Your task to perform on an android device: Do I have any events this weekend? Image 0: 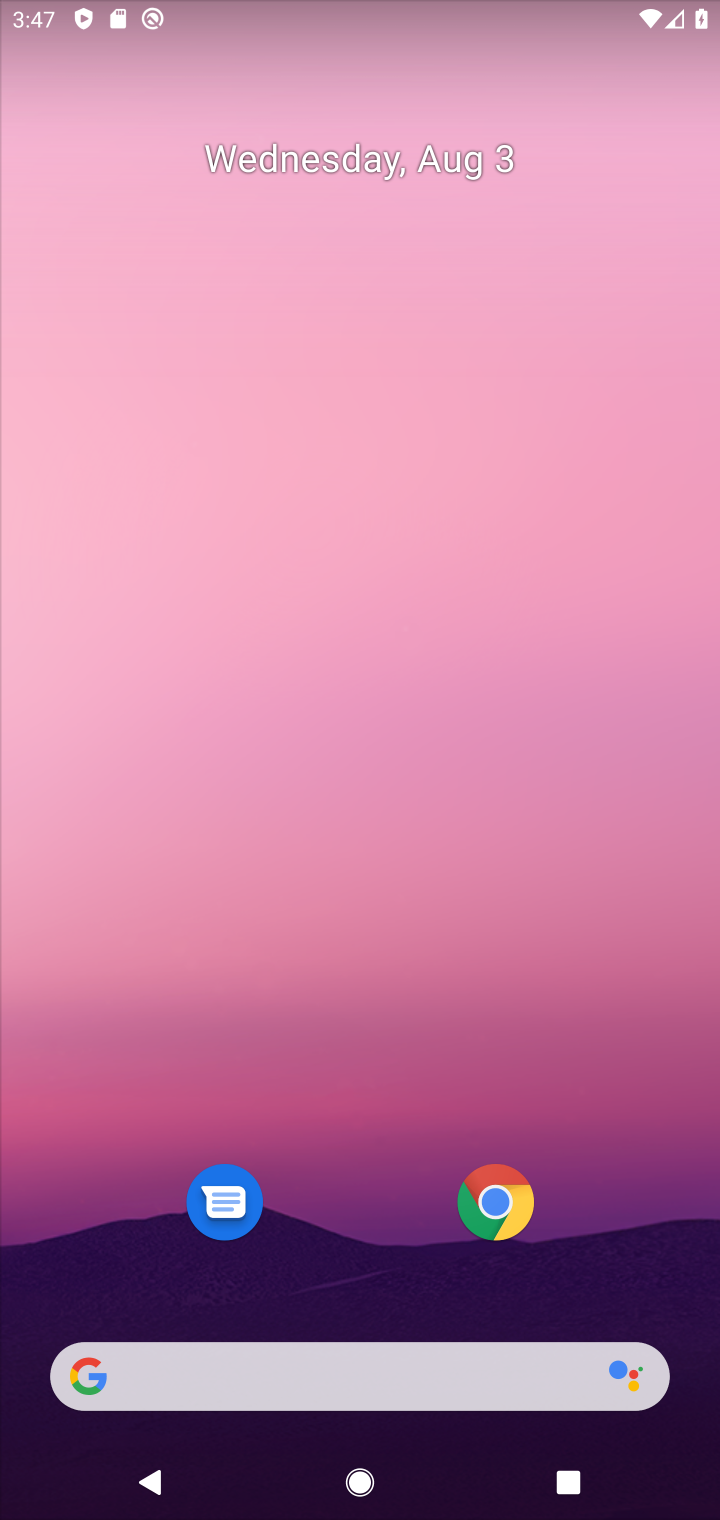
Step 0: drag from (350, 969) to (479, 0)
Your task to perform on an android device: Do I have any events this weekend? Image 1: 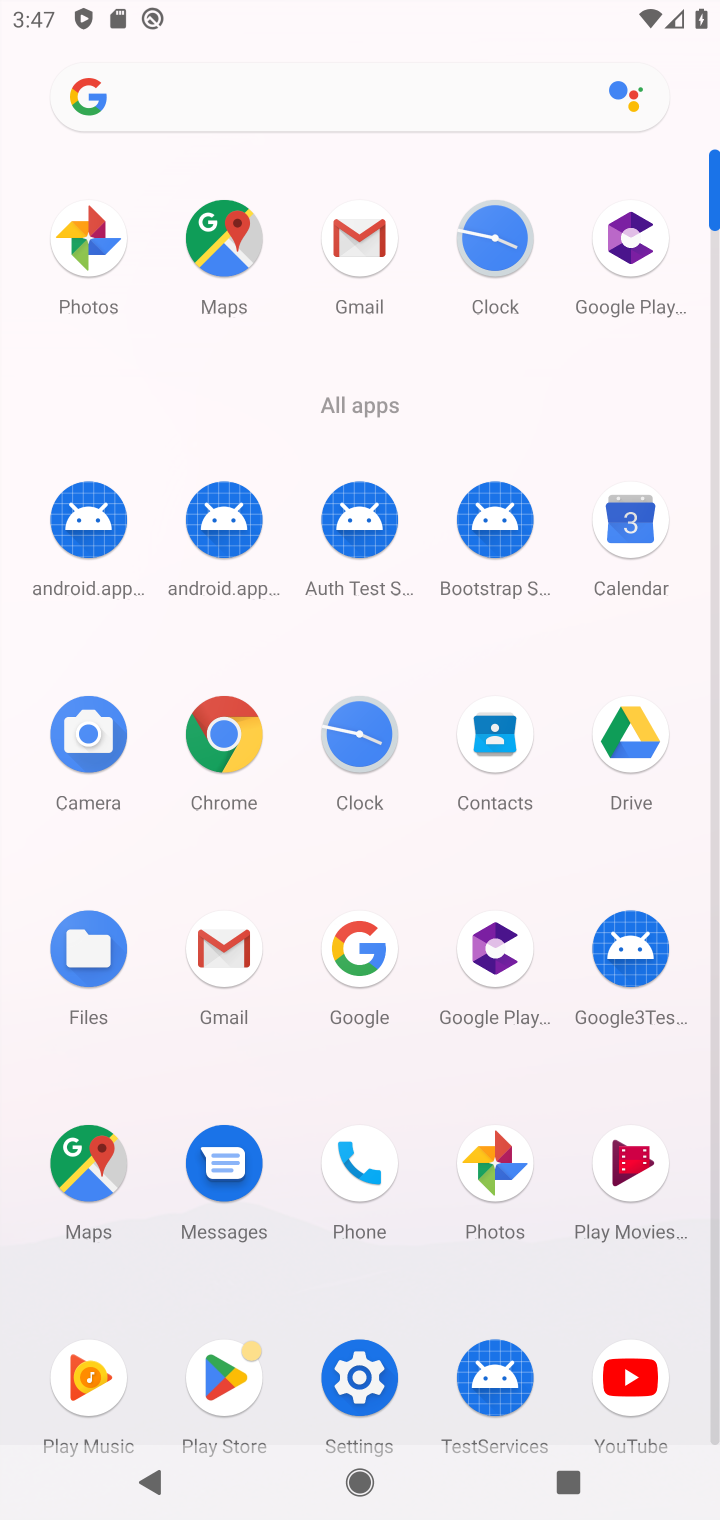
Step 1: click (637, 520)
Your task to perform on an android device: Do I have any events this weekend? Image 2: 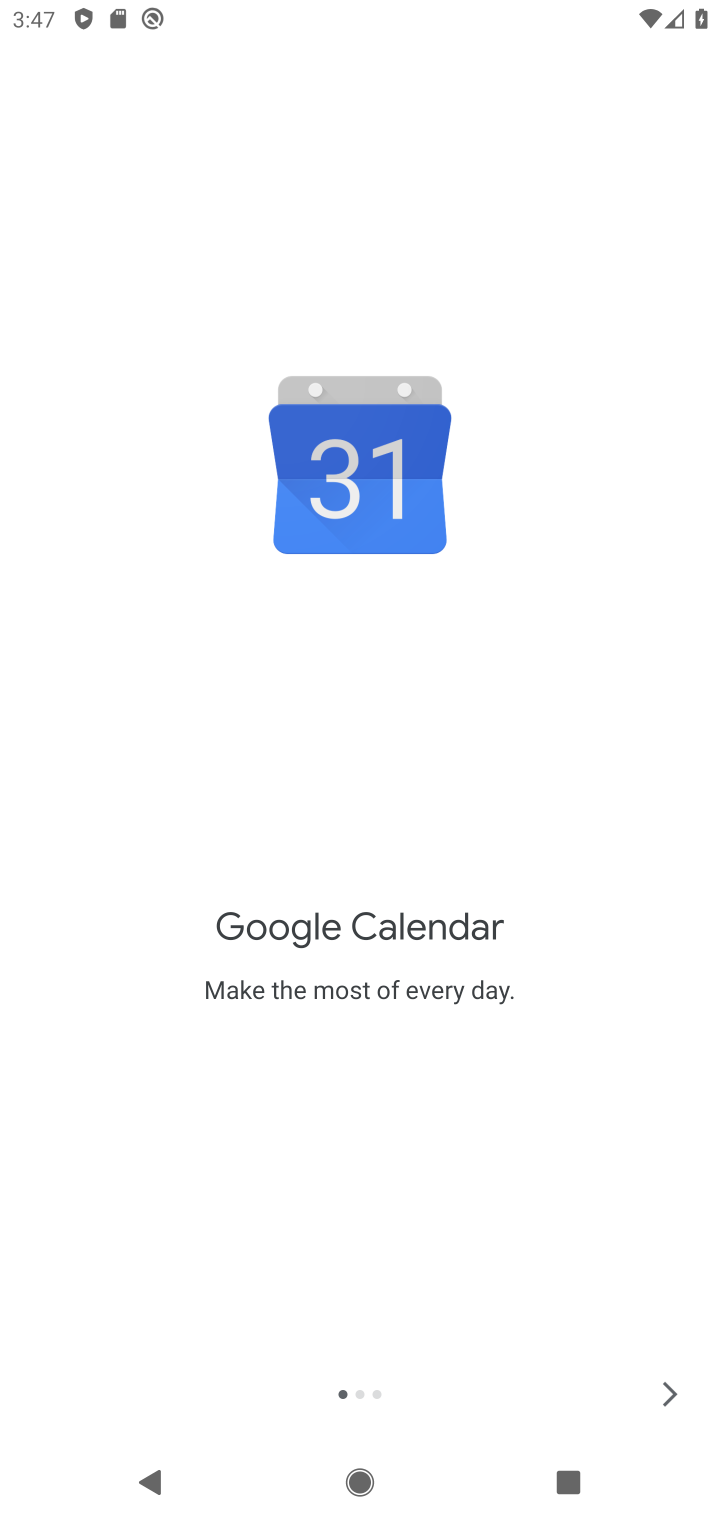
Step 2: click (671, 1384)
Your task to perform on an android device: Do I have any events this weekend? Image 3: 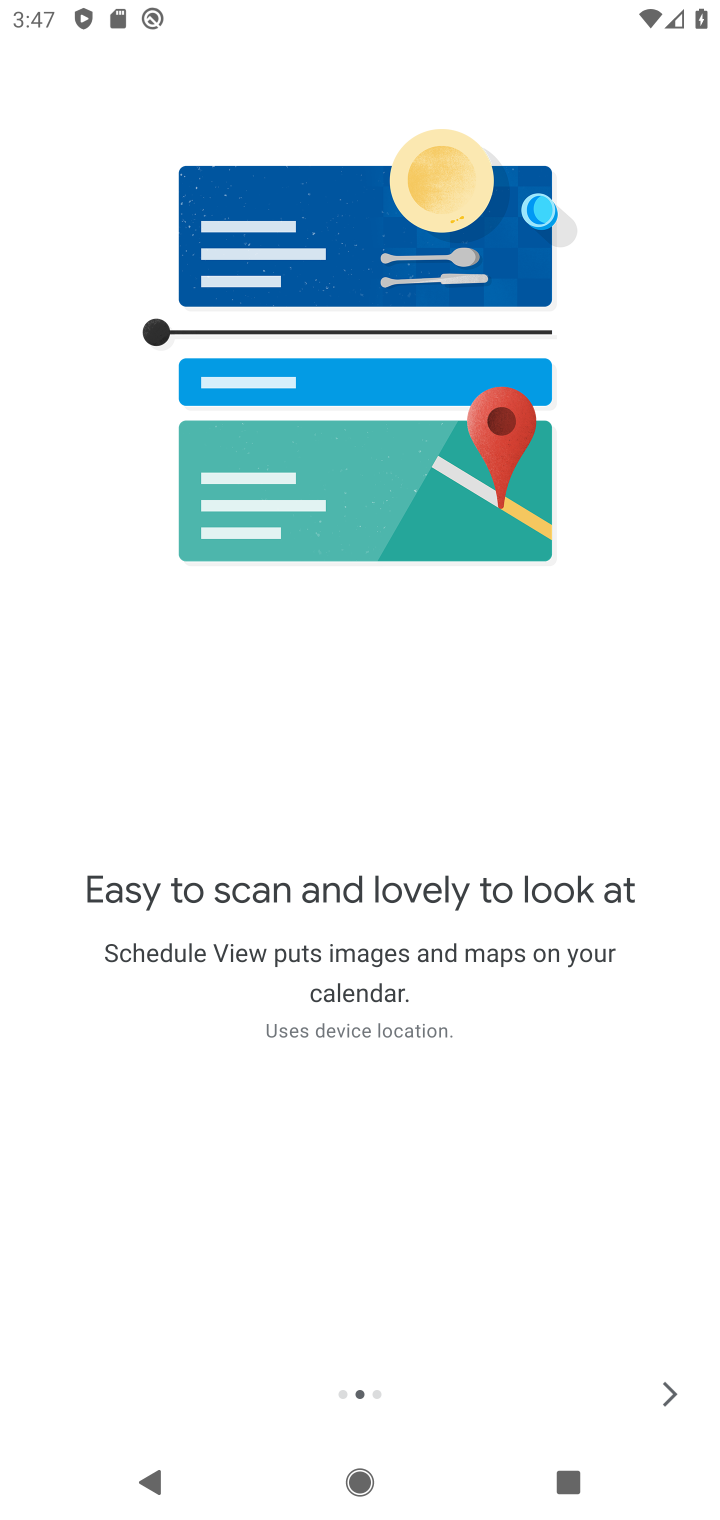
Step 3: click (677, 1367)
Your task to perform on an android device: Do I have any events this weekend? Image 4: 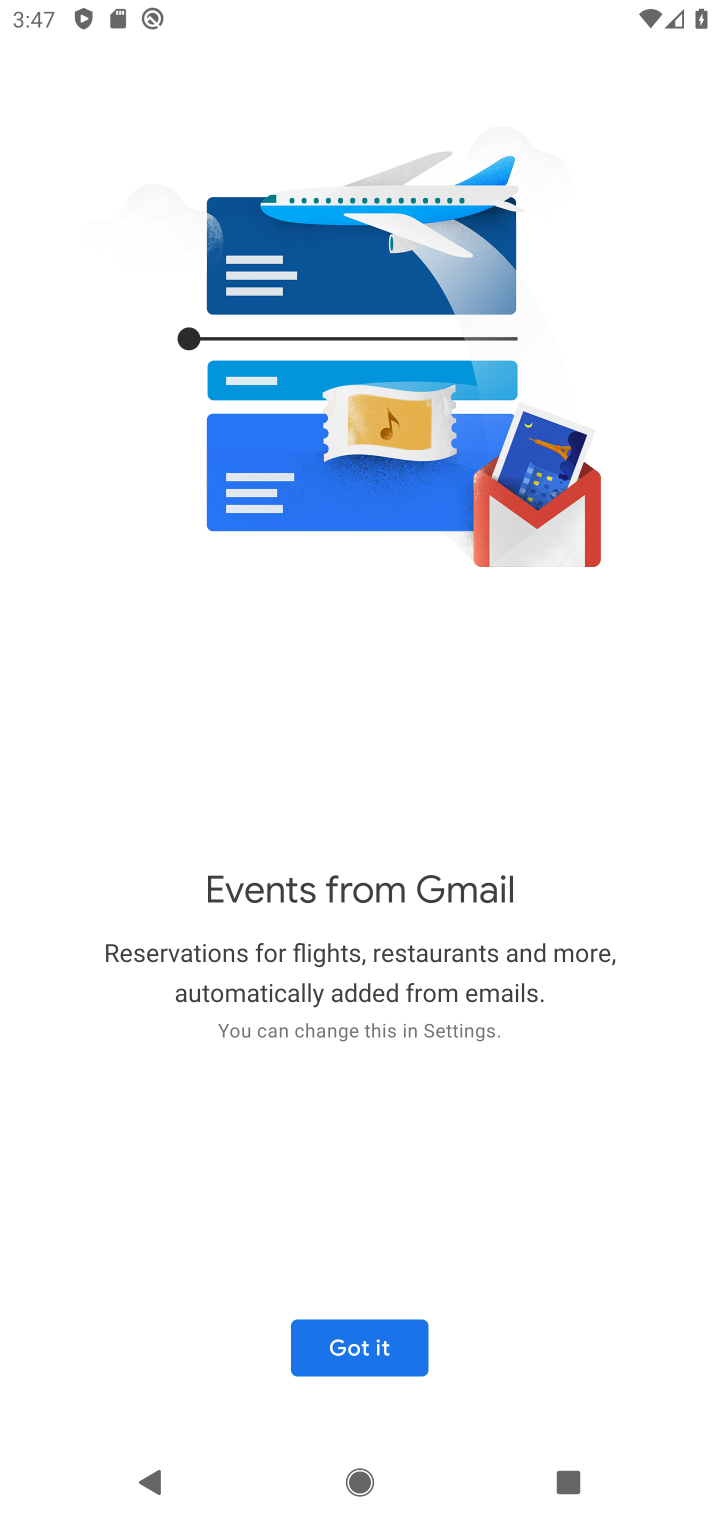
Step 4: click (378, 1368)
Your task to perform on an android device: Do I have any events this weekend? Image 5: 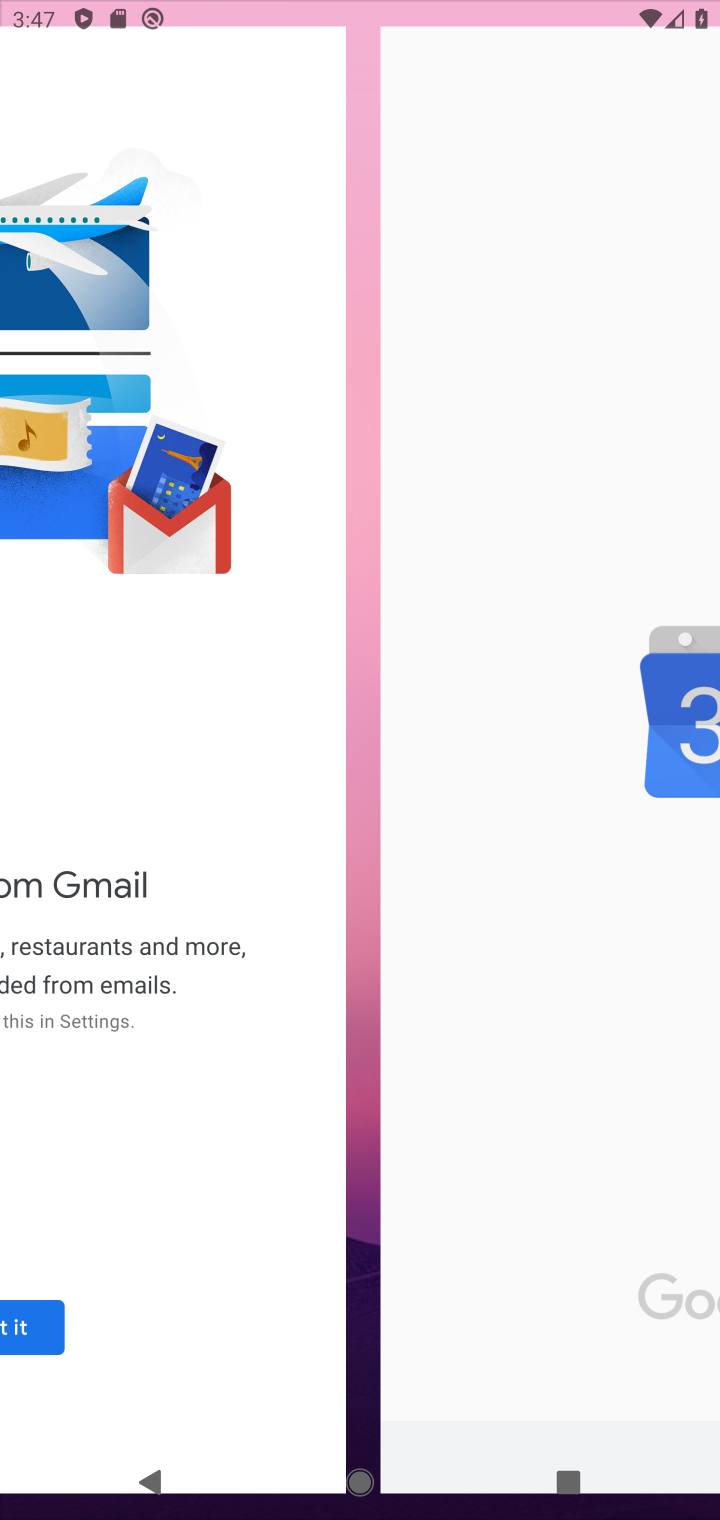
Step 5: click (378, 1368)
Your task to perform on an android device: Do I have any events this weekend? Image 6: 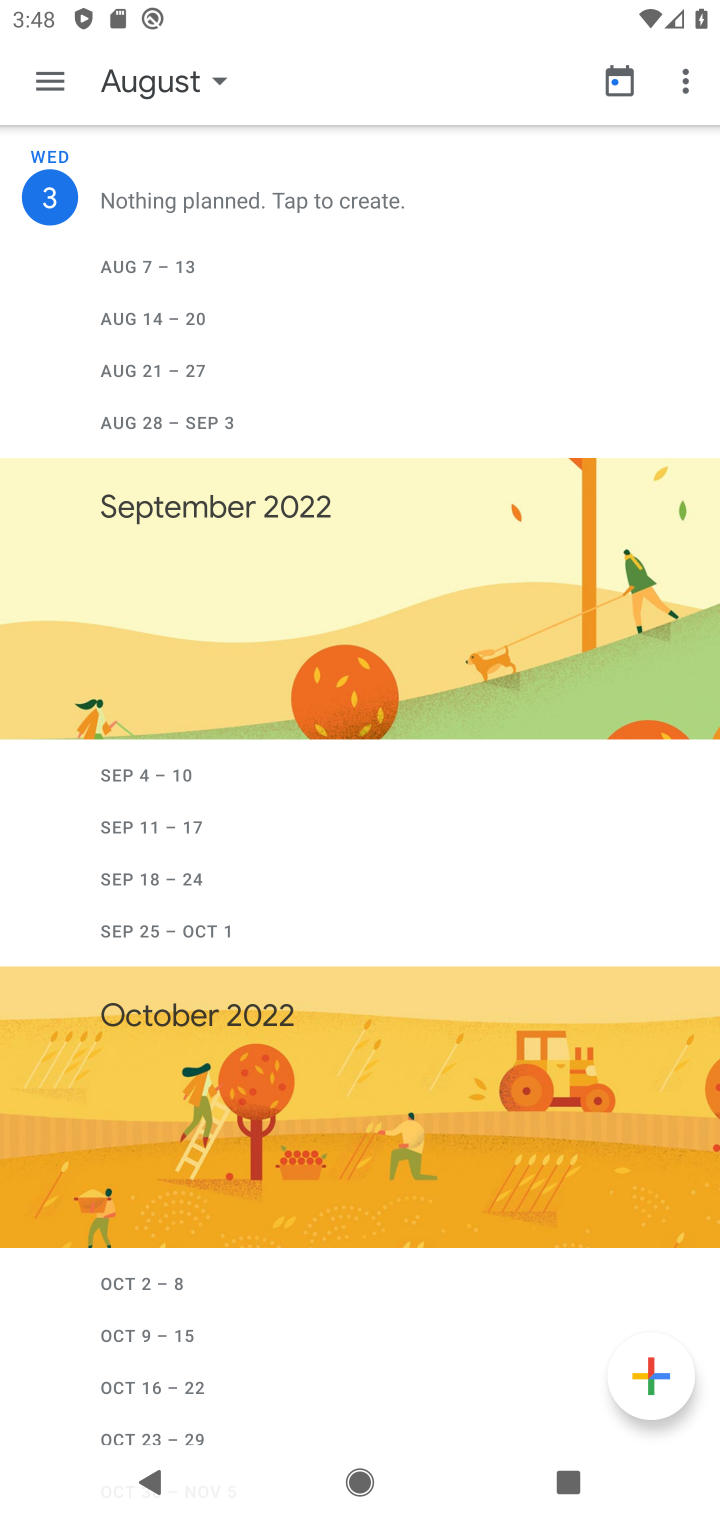
Step 6: click (192, 90)
Your task to perform on an android device: Do I have any events this weekend? Image 7: 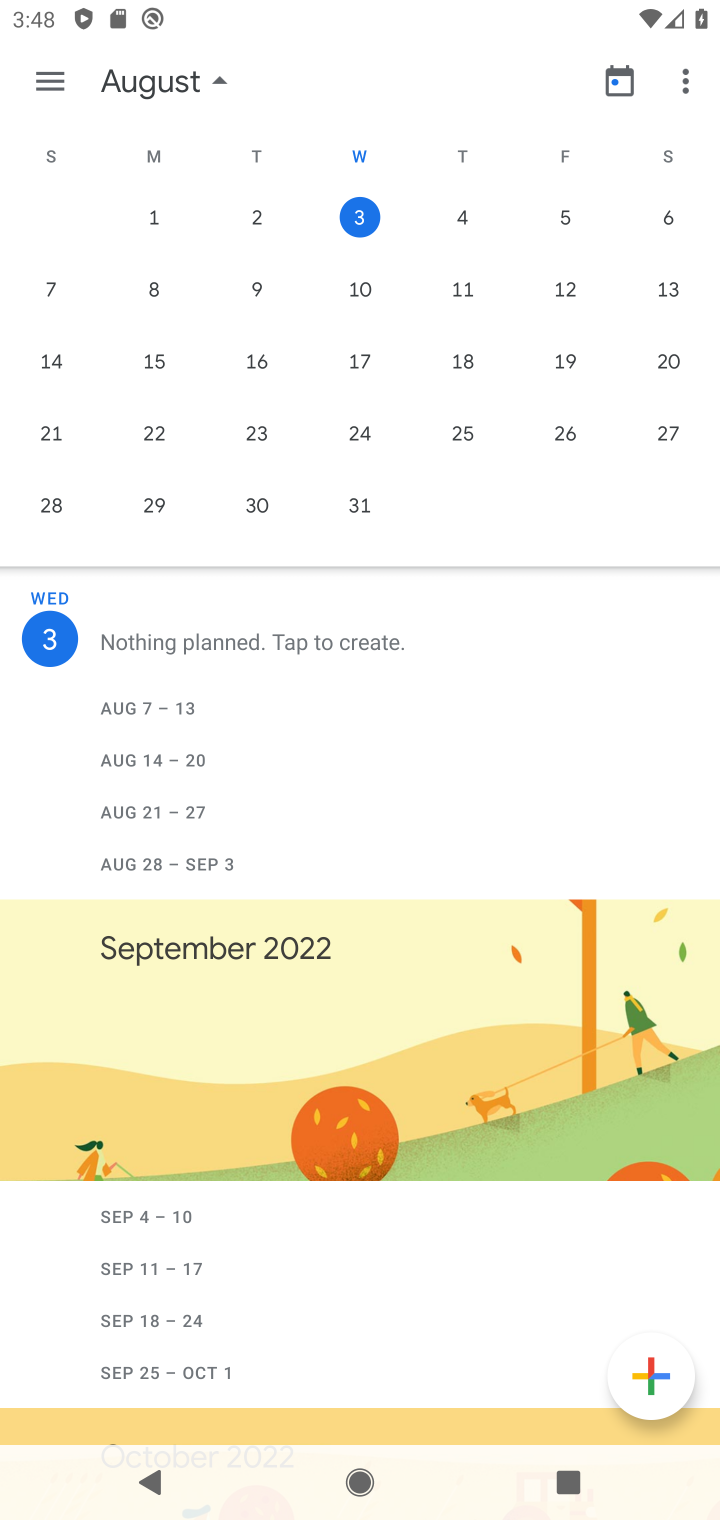
Step 7: click (664, 221)
Your task to perform on an android device: Do I have any events this weekend? Image 8: 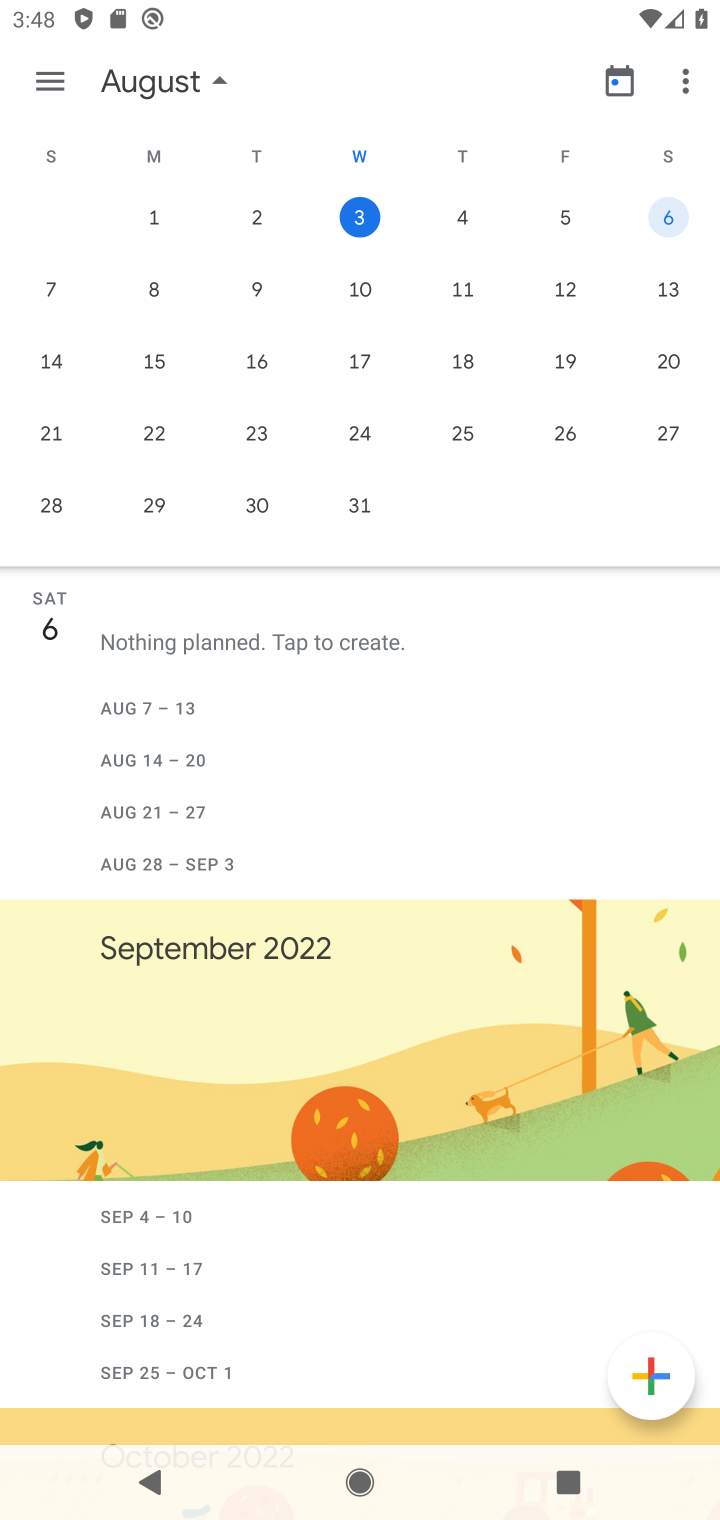
Step 8: task complete